Your task to perform on an android device: Find coffee shops on Maps Image 0: 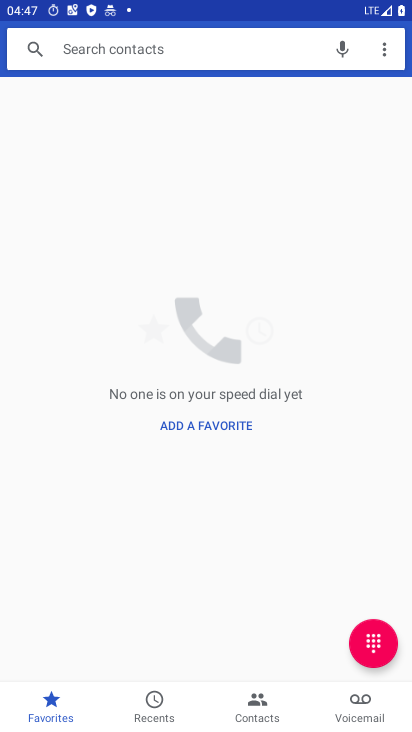
Step 0: press home button
Your task to perform on an android device: Find coffee shops on Maps Image 1: 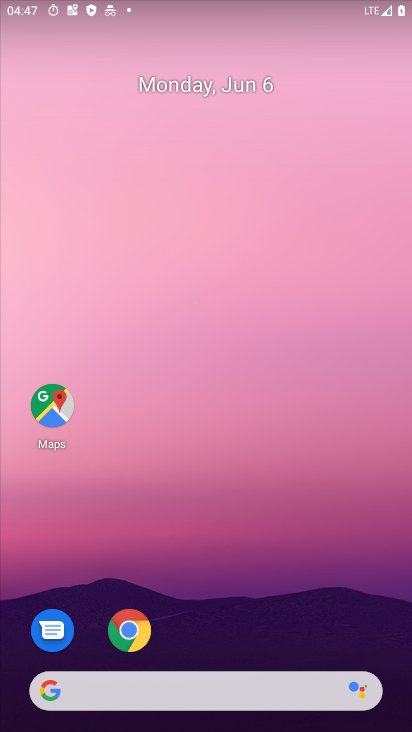
Step 1: drag from (198, 631) to (127, 120)
Your task to perform on an android device: Find coffee shops on Maps Image 2: 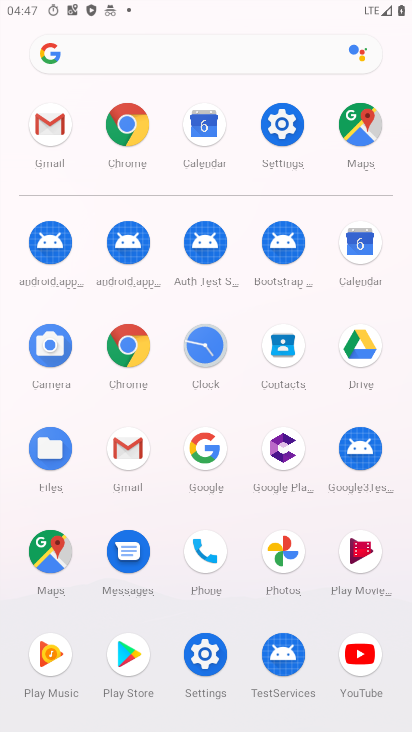
Step 2: click (135, 341)
Your task to perform on an android device: Find coffee shops on Maps Image 3: 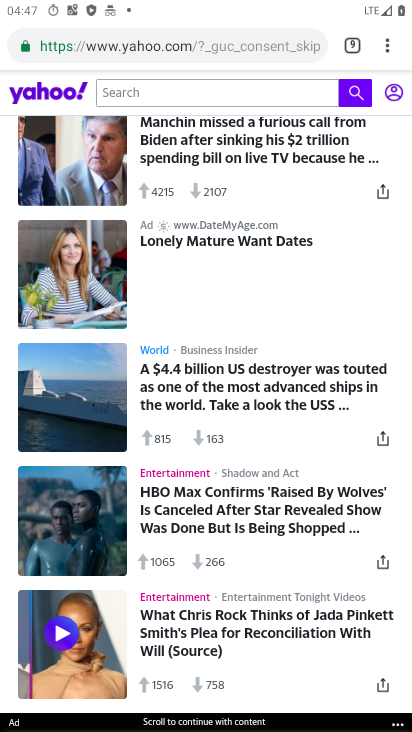
Step 3: press home button
Your task to perform on an android device: Find coffee shops on Maps Image 4: 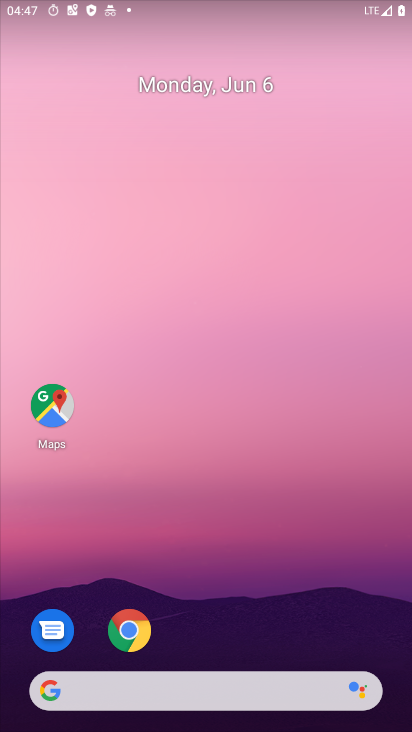
Step 4: click (56, 401)
Your task to perform on an android device: Find coffee shops on Maps Image 5: 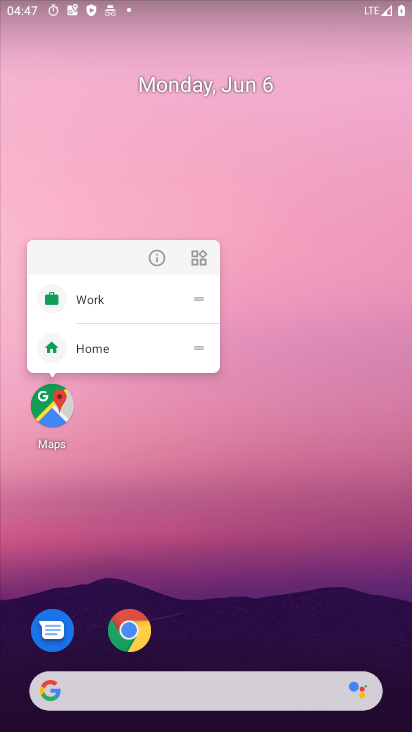
Step 5: drag from (229, 618) to (311, 83)
Your task to perform on an android device: Find coffee shops on Maps Image 6: 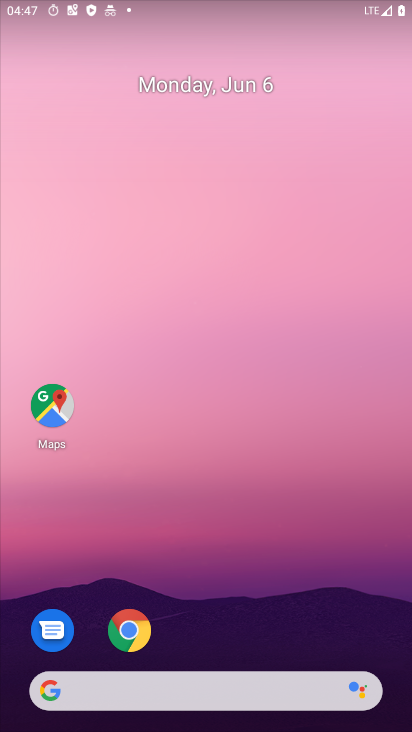
Step 6: drag from (267, 656) to (260, 62)
Your task to perform on an android device: Find coffee shops on Maps Image 7: 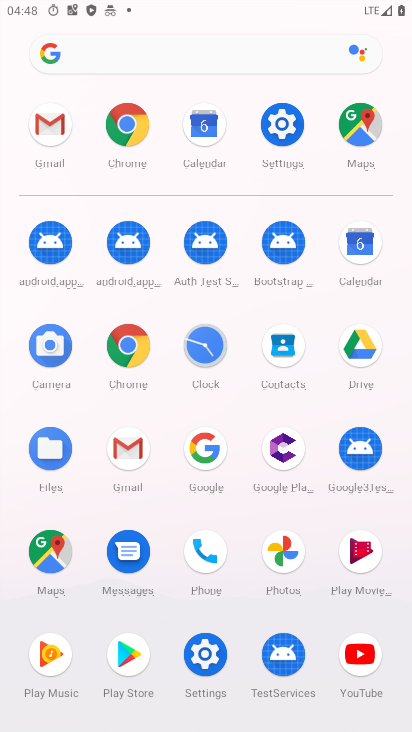
Step 7: click (62, 540)
Your task to perform on an android device: Find coffee shops on Maps Image 8: 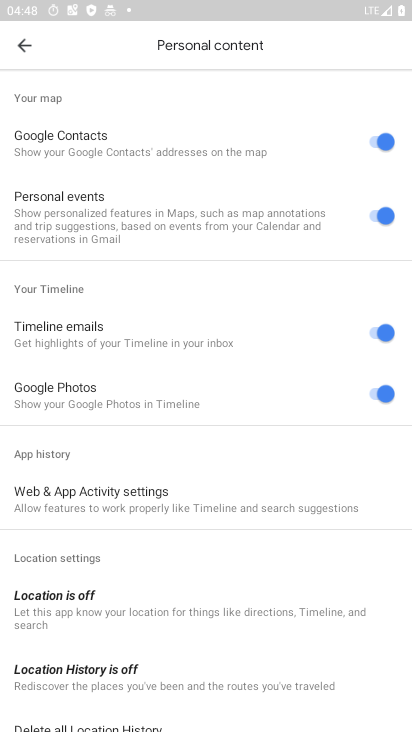
Step 8: click (23, 46)
Your task to perform on an android device: Find coffee shops on Maps Image 9: 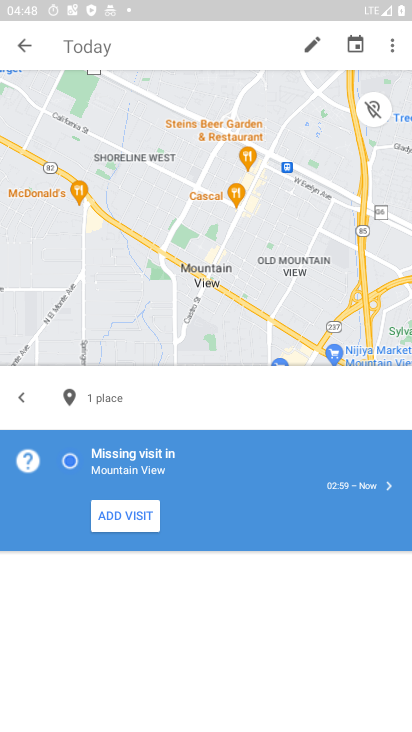
Step 9: click (23, 47)
Your task to perform on an android device: Find coffee shops on Maps Image 10: 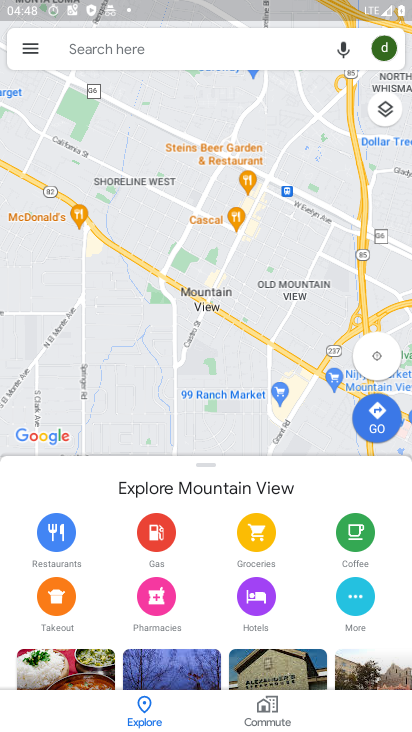
Step 10: click (101, 47)
Your task to perform on an android device: Find coffee shops on Maps Image 11: 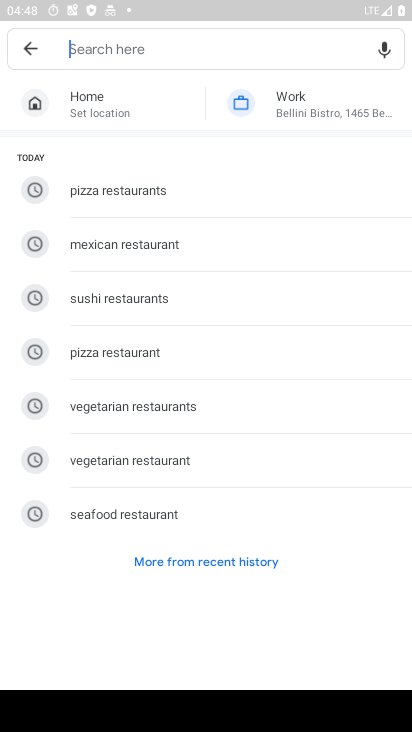
Step 11: type " coffee shops "
Your task to perform on an android device: Find coffee shops on Maps Image 12: 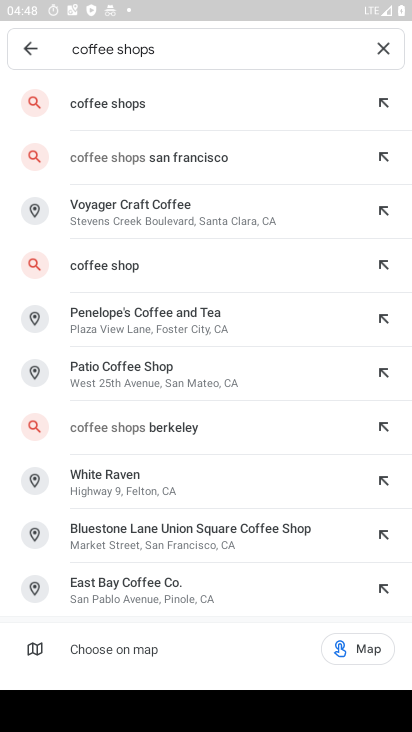
Step 12: click (148, 97)
Your task to perform on an android device: Find coffee shops on Maps Image 13: 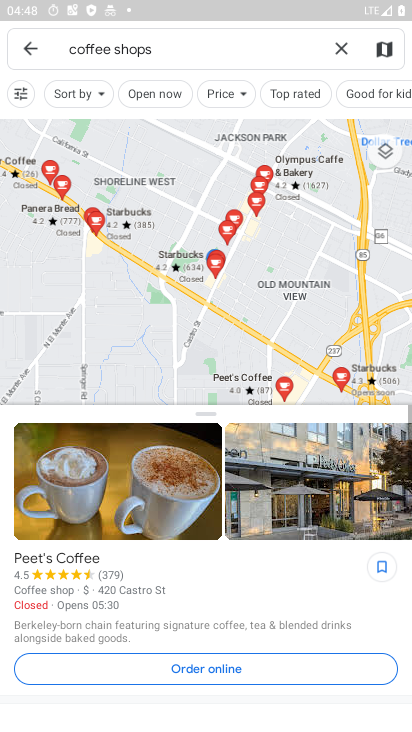
Step 13: task complete